Your task to perform on an android device: Open calendar and show me the third week of next month Image 0: 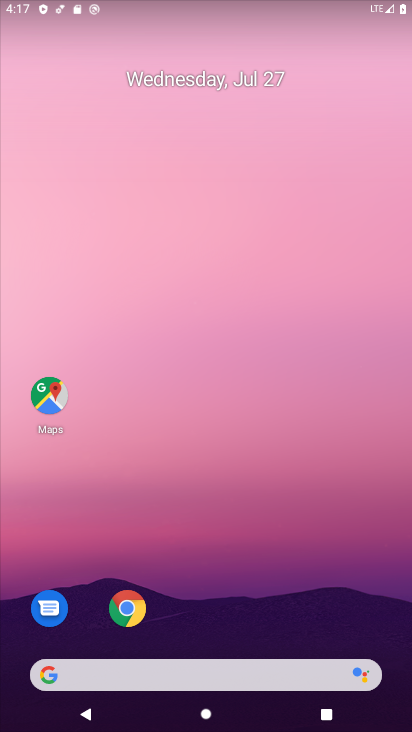
Step 0: drag from (286, 641) to (303, 199)
Your task to perform on an android device: Open calendar and show me the third week of next month Image 1: 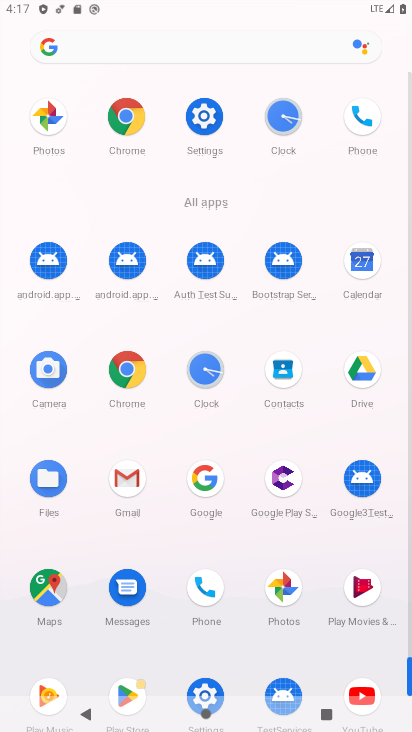
Step 1: click (356, 266)
Your task to perform on an android device: Open calendar and show me the third week of next month Image 2: 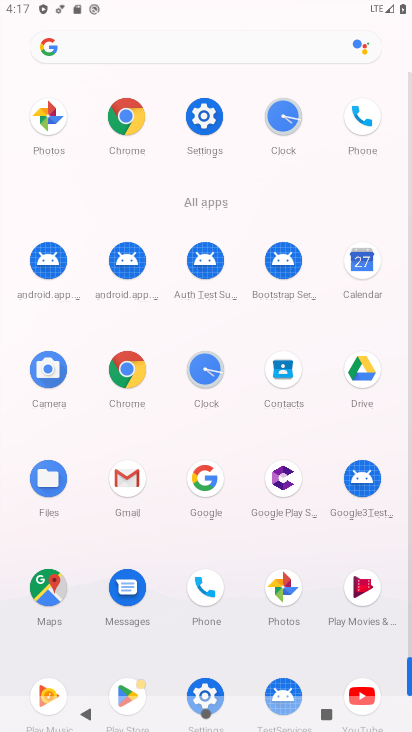
Step 2: click (360, 261)
Your task to perform on an android device: Open calendar and show me the third week of next month Image 3: 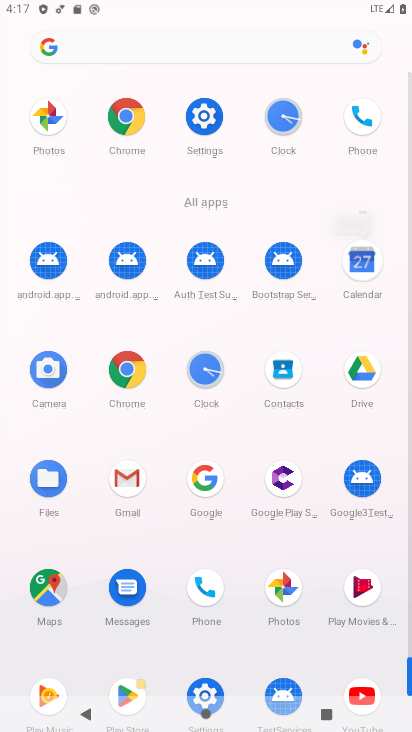
Step 3: click (360, 261)
Your task to perform on an android device: Open calendar and show me the third week of next month Image 4: 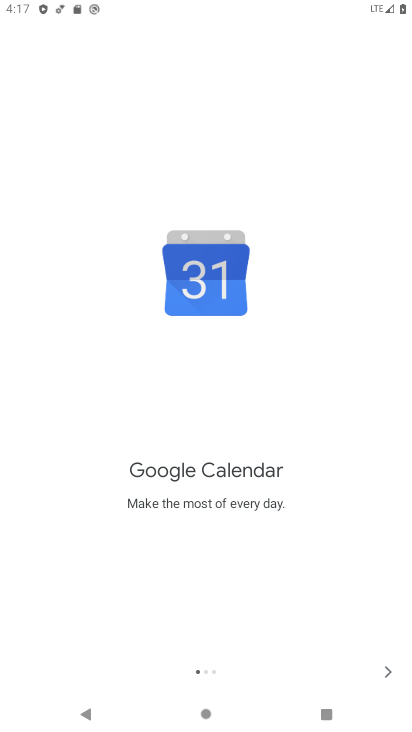
Step 4: click (385, 669)
Your task to perform on an android device: Open calendar and show me the third week of next month Image 5: 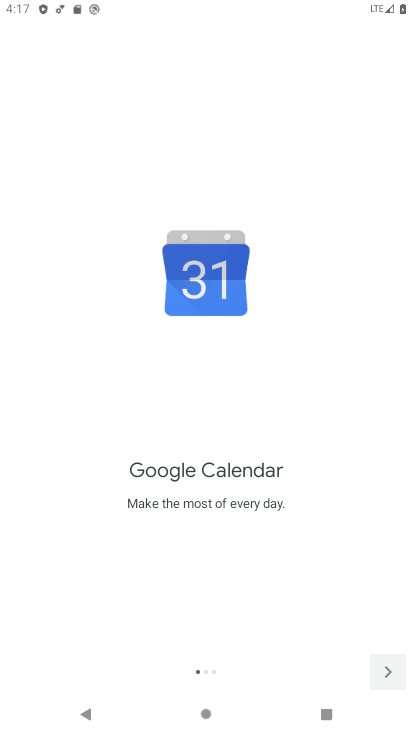
Step 5: click (384, 672)
Your task to perform on an android device: Open calendar and show me the third week of next month Image 6: 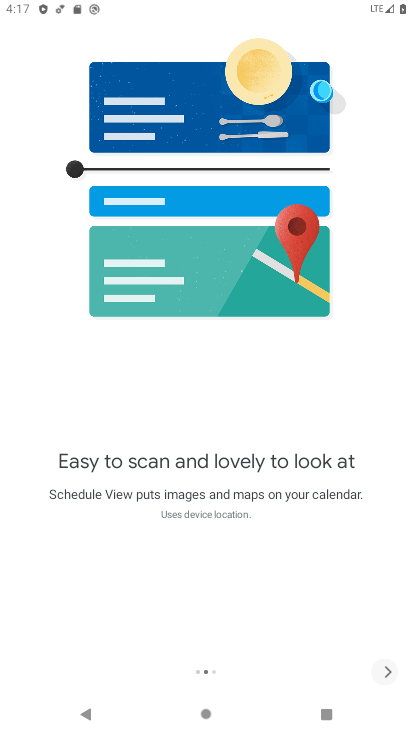
Step 6: click (384, 672)
Your task to perform on an android device: Open calendar and show me the third week of next month Image 7: 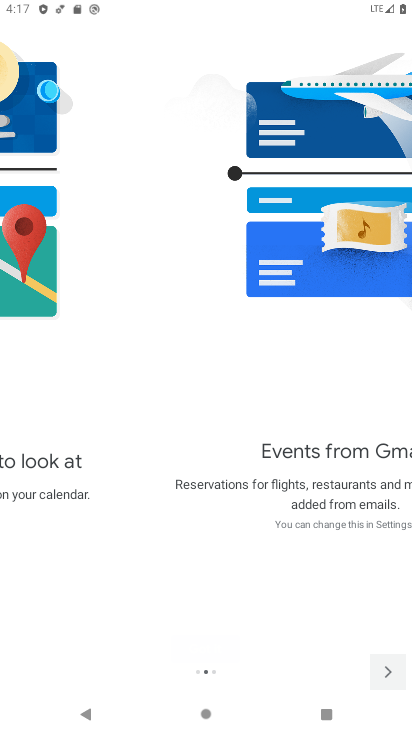
Step 7: click (384, 673)
Your task to perform on an android device: Open calendar and show me the third week of next month Image 8: 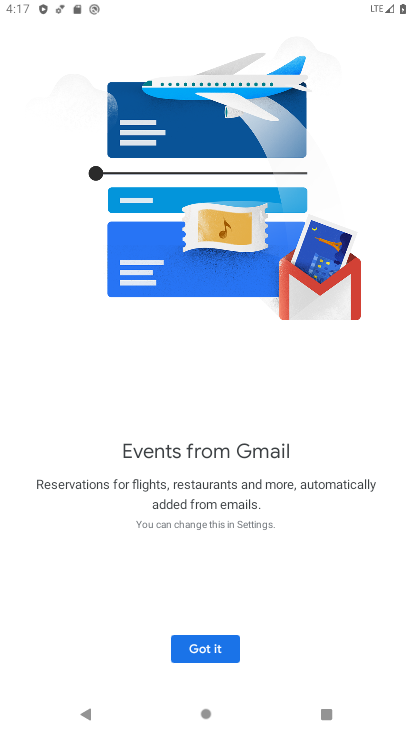
Step 8: click (217, 651)
Your task to perform on an android device: Open calendar and show me the third week of next month Image 9: 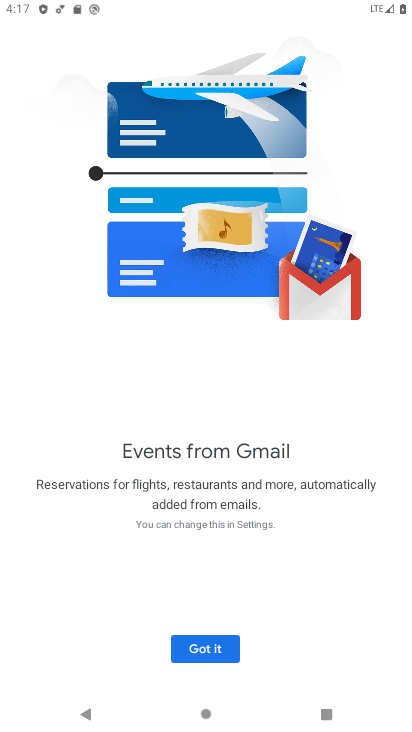
Step 9: click (215, 643)
Your task to perform on an android device: Open calendar and show me the third week of next month Image 10: 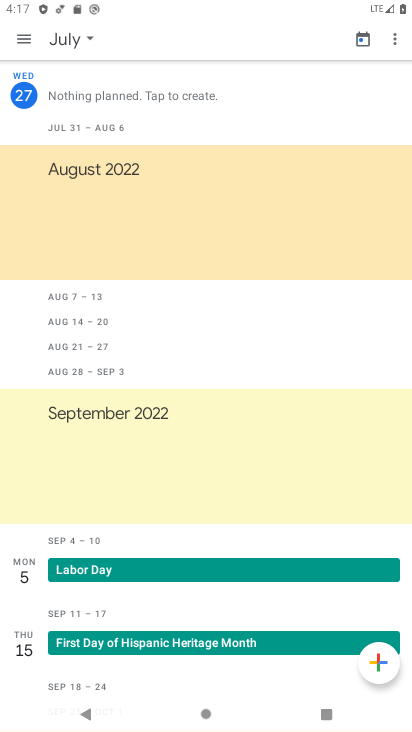
Step 10: click (275, 625)
Your task to perform on an android device: Open calendar and show me the third week of next month Image 11: 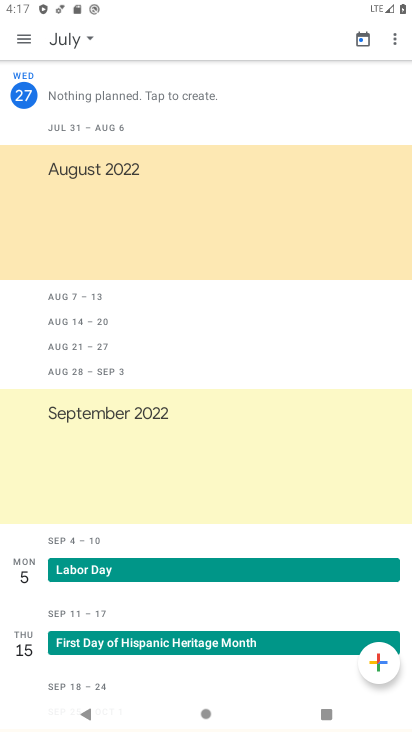
Step 11: click (87, 34)
Your task to perform on an android device: Open calendar and show me the third week of next month Image 12: 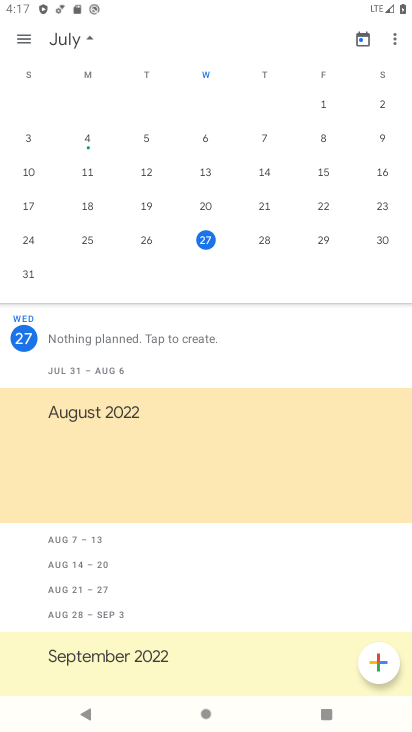
Step 12: drag from (325, 185) to (102, 198)
Your task to perform on an android device: Open calendar and show me the third week of next month Image 13: 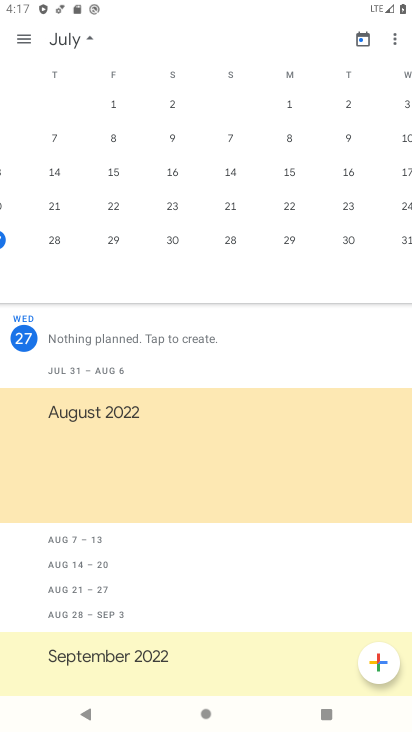
Step 13: drag from (314, 214) to (117, 214)
Your task to perform on an android device: Open calendar and show me the third week of next month Image 14: 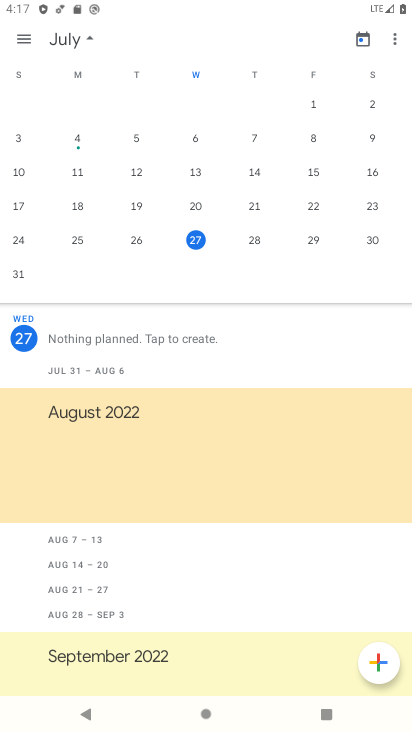
Step 14: drag from (151, 225) to (7, 197)
Your task to perform on an android device: Open calendar and show me the third week of next month Image 15: 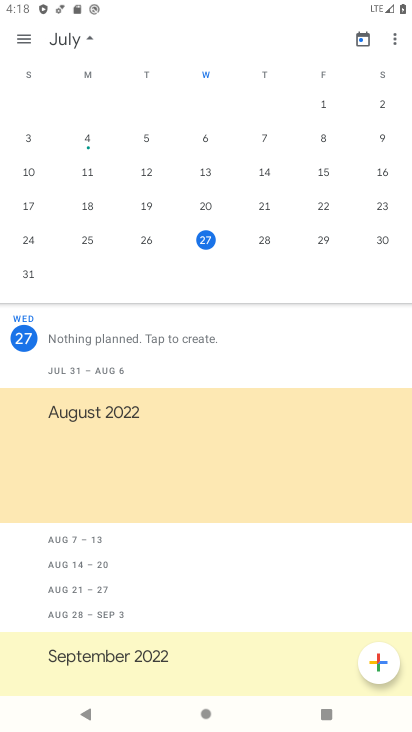
Step 15: drag from (293, 208) to (147, 262)
Your task to perform on an android device: Open calendar and show me the third week of next month Image 16: 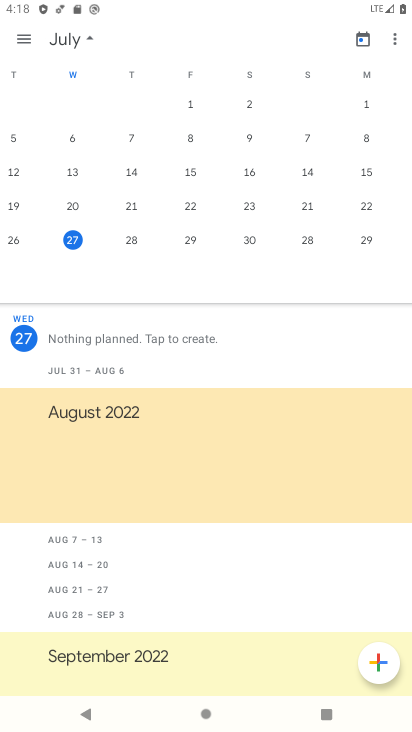
Step 16: drag from (314, 182) to (39, 178)
Your task to perform on an android device: Open calendar and show me the third week of next month Image 17: 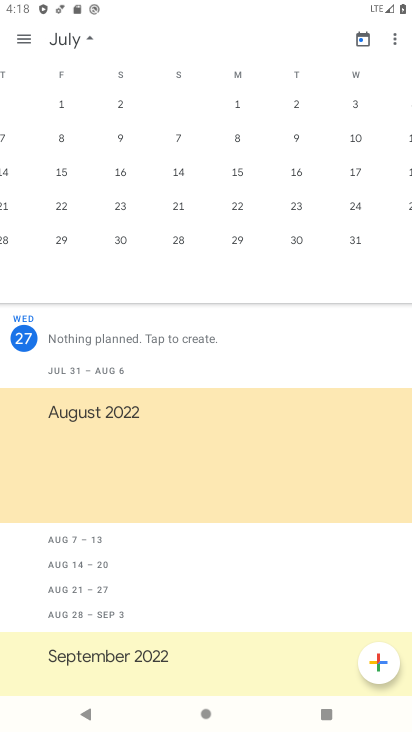
Step 17: drag from (216, 220) to (2, 220)
Your task to perform on an android device: Open calendar and show me the third week of next month Image 18: 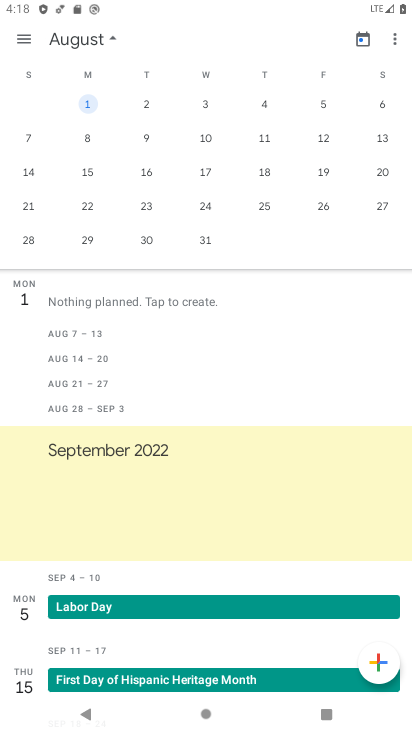
Step 18: click (86, 166)
Your task to perform on an android device: Open calendar and show me the third week of next month Image 19: 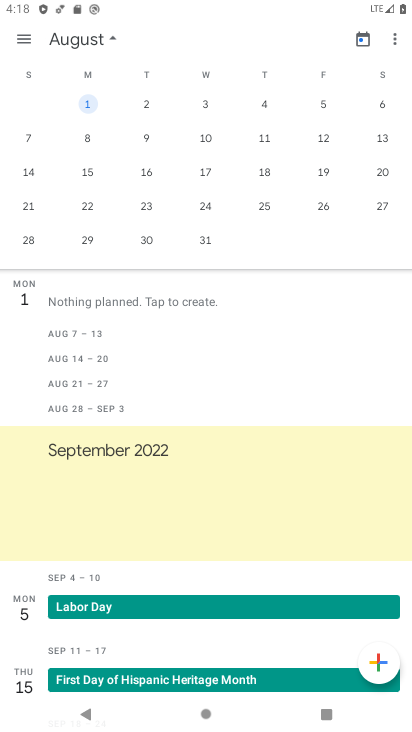
Step 19: click (90, 168)
Your task to perform on an android device: Open calendar and show me the third week of next month Image 20: 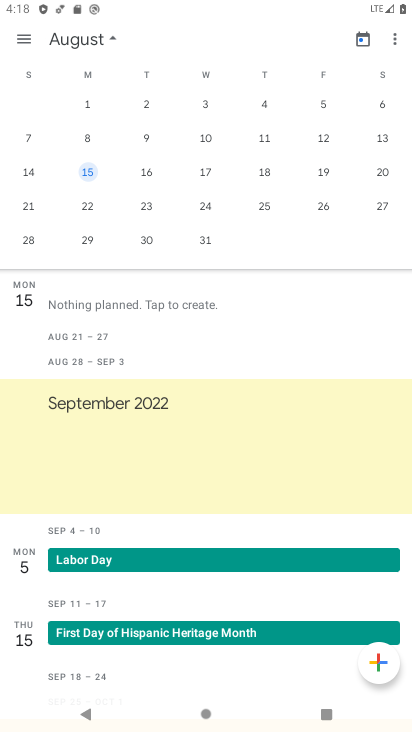
Step 20: task complete